Your task to perform on an android device: turn vacation reply on in the gmail app Image 0: 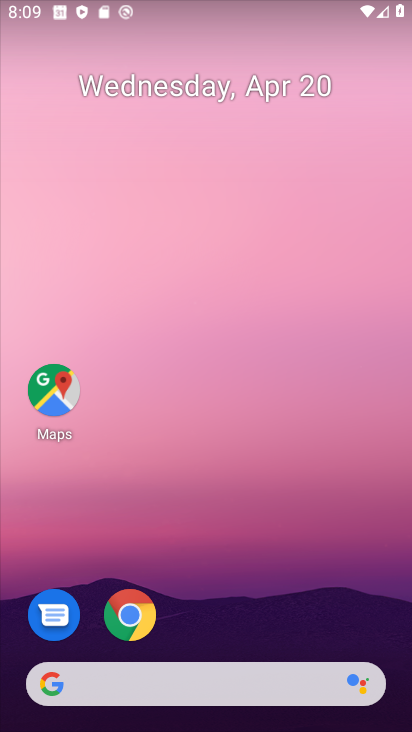
Step 0: drag from (211, 621) to (237, 44)
Your task to perform on an android device: turn vacation reply on in the gmail app Image 1: 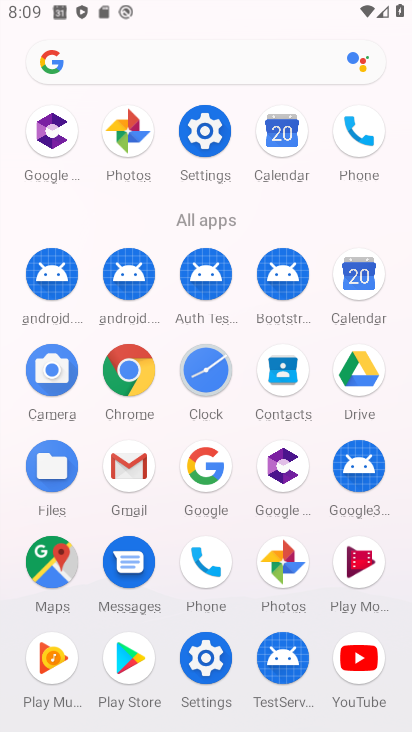
Step 1: click (126, 468)
Your task to perform on an android device: turn vacation reply on in the gmail app Image 2: 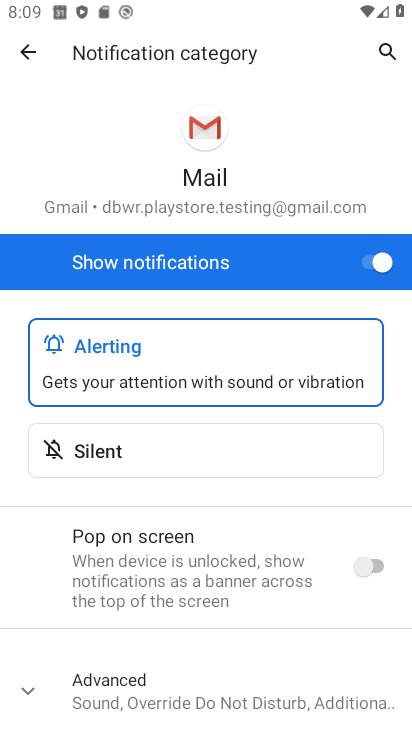
Step 2: press back button
Your task to perform on an android device: turn vacation reply on in the gmail app Image 3: 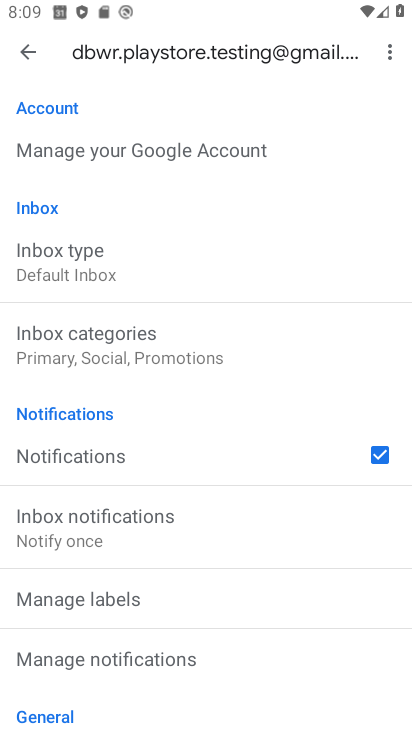
Step 3: drag from (224, 609) to (278, 383)
Your task to perform on an android device: turn vacation reply on in the gmail app Image 4: 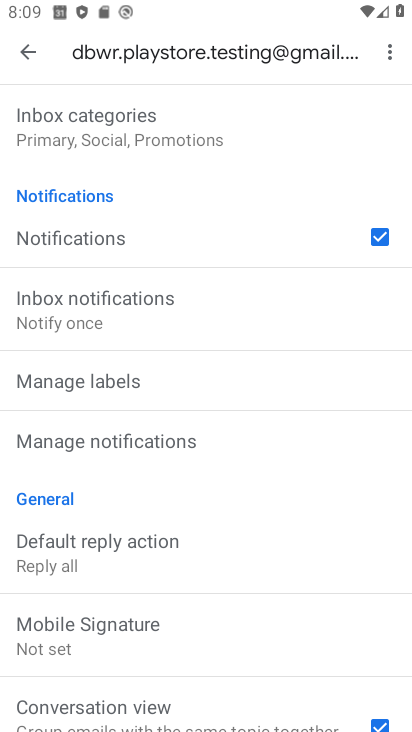
Step 4: drag from (210, 530) to (245, 388)
Your task to perform on an android device: turn vacation reply on in the gmail app Image 5: 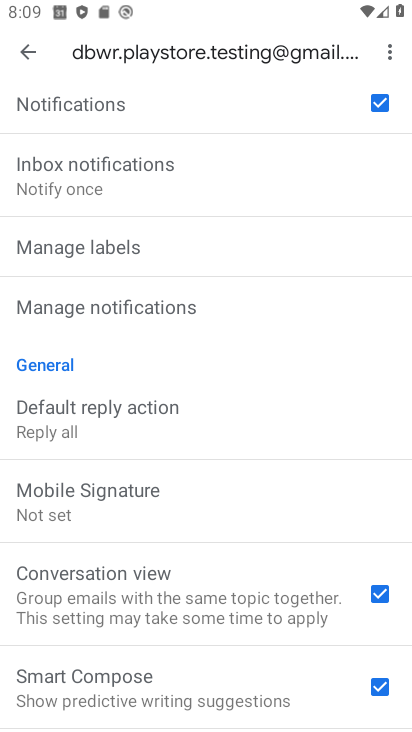
Step 5: drag from (195, 501) to (244, 399)
Your task to perform on an android device: turn vacation reply on in the gmail app Image 6: 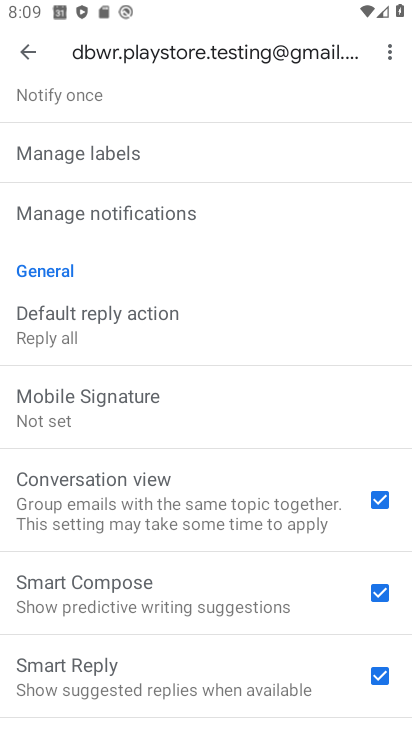
Step 6: drag from (165, 638) to (211, 473)
Your task to perform on an android device: turn vacation reply on in the gmail app Image 7: 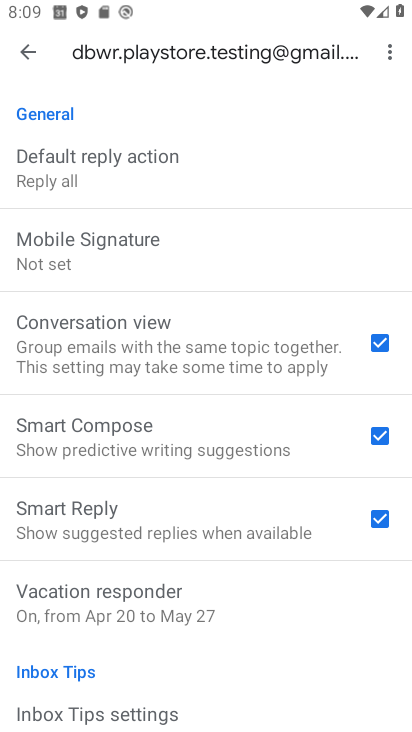
Step 7: click (157, 592)
Your task to perform on an android device: turn vacation reply on in the gmail app Image 8: 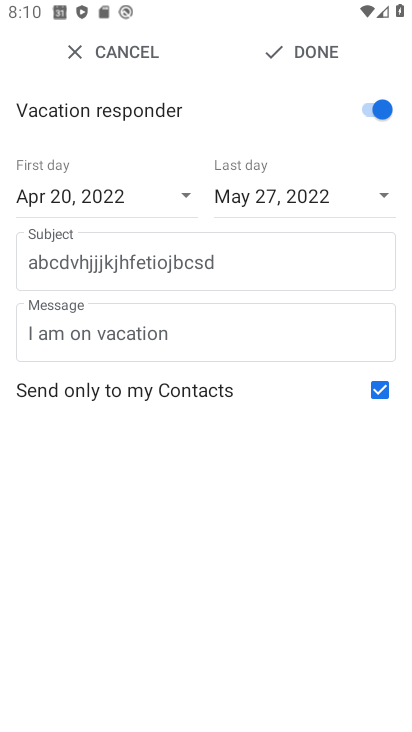
Step 8: task complete